Your task to perform on an android device: Go to CNN.com Image 0: 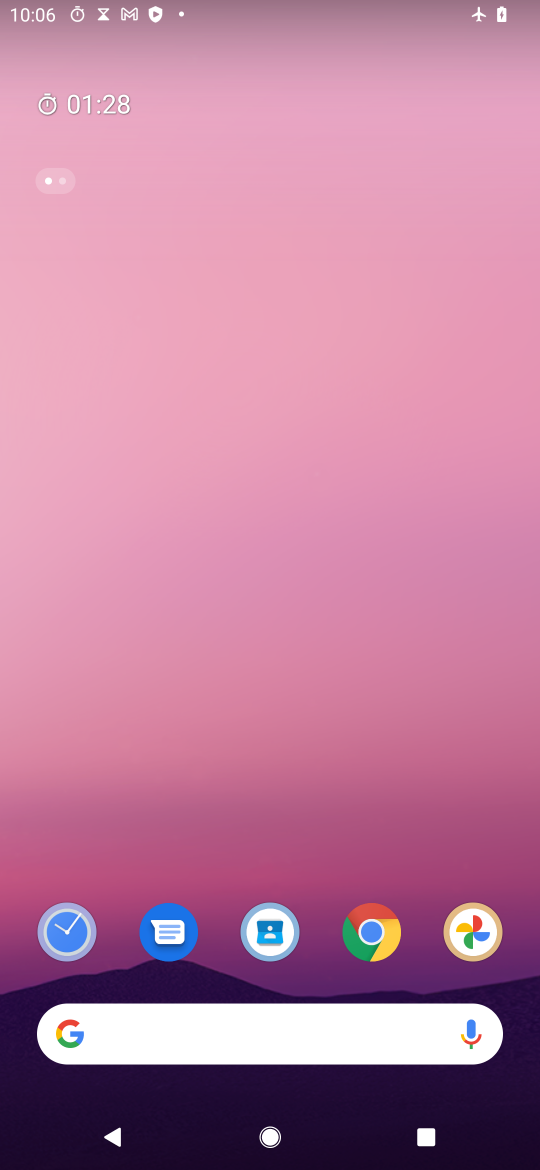
Step 0: drag from (329, 13) to (389, 512)
Your task to perform on an android device: Go to CNN.com Image 1: 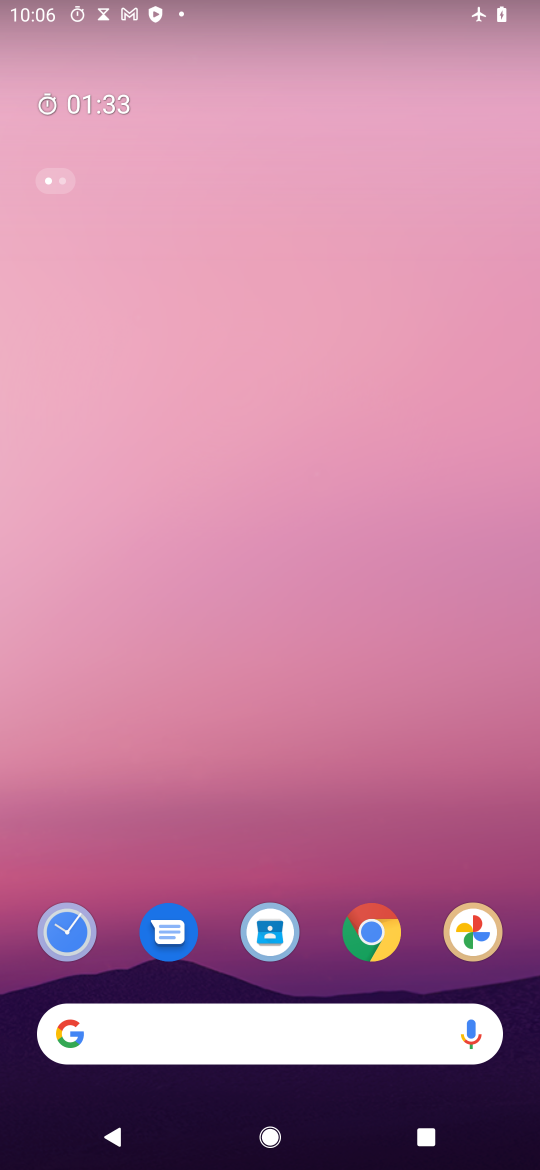
Step 1: drag from (344, 9) to (535, 1128)
Your task to perform on an android device: Go to CNN.com Image 2: 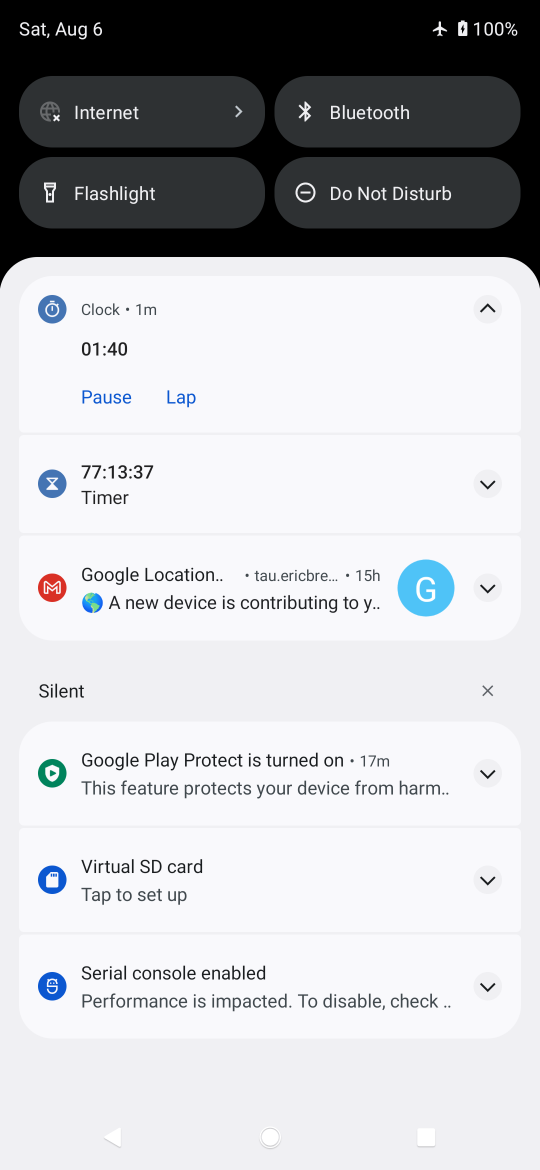
Step 2: drag from (279, 240) to (295, 622)
Your task to perform on an android device: Go to CNN.com Image 3: 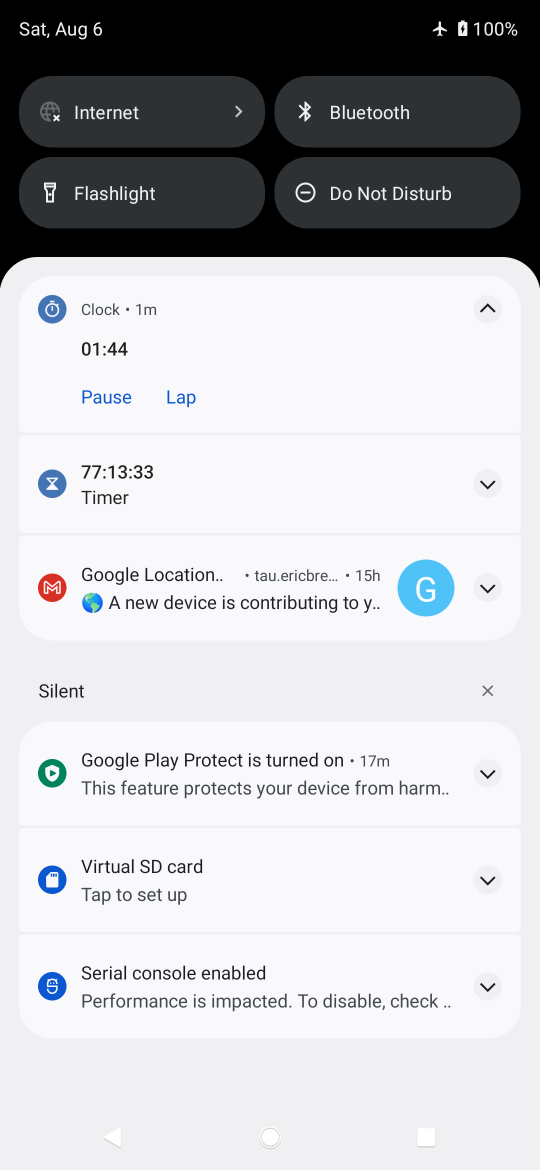
Step 3: drag from (275, 221) to (398, 1143)
Your task to perform on an android device: Go to CNN.com Image 4: 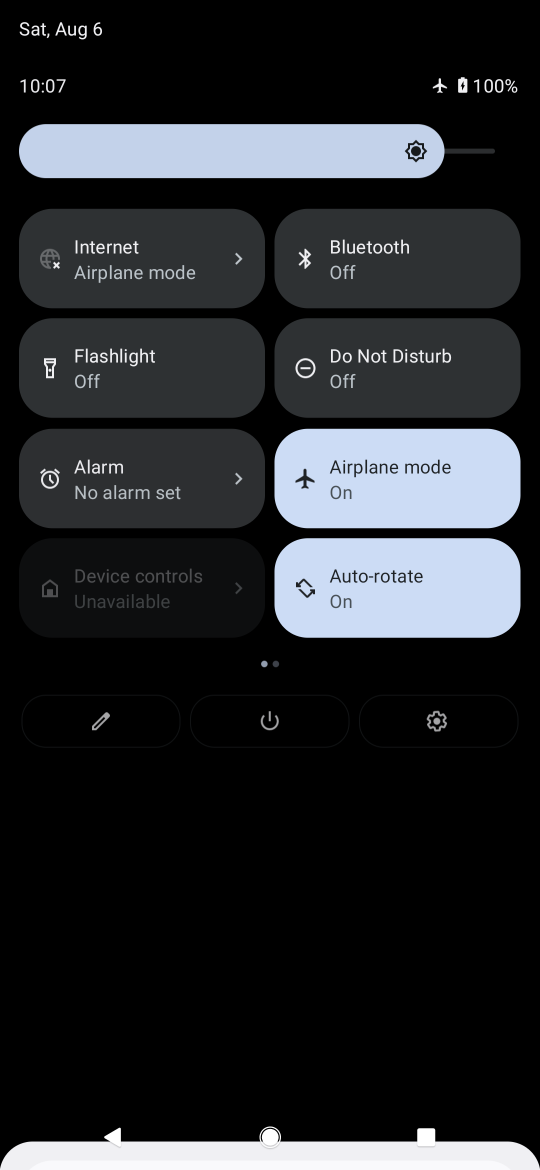
Step 4: click (371, 475)
Your task to perform on an android device: Go to CNN.com Image 5: 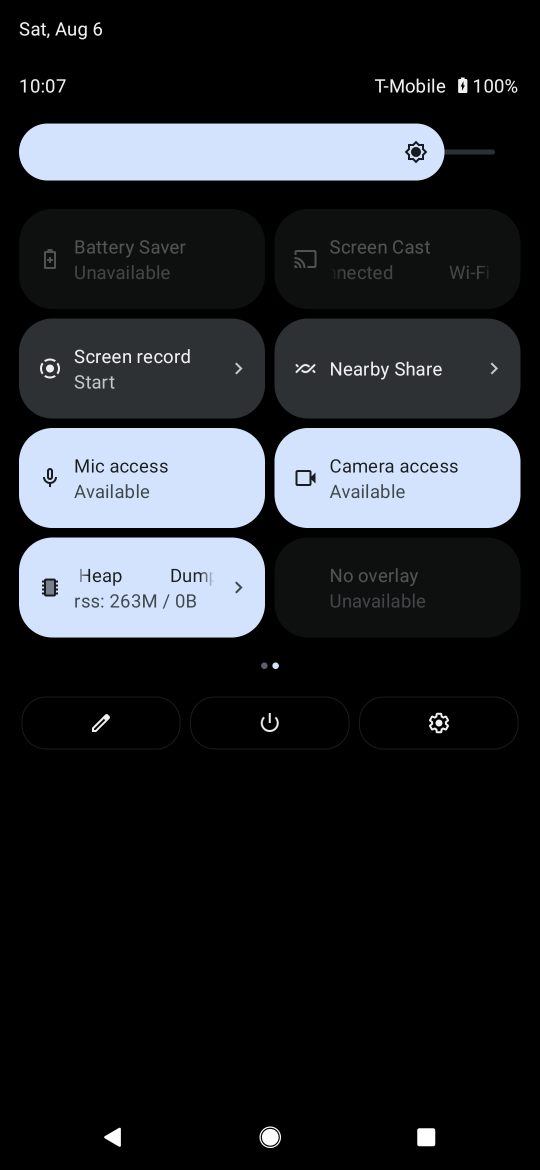
Step 5: drag from (211, 664) to (531, 659)
Your task to perform on an android device: Go to CNN.com Image 6: 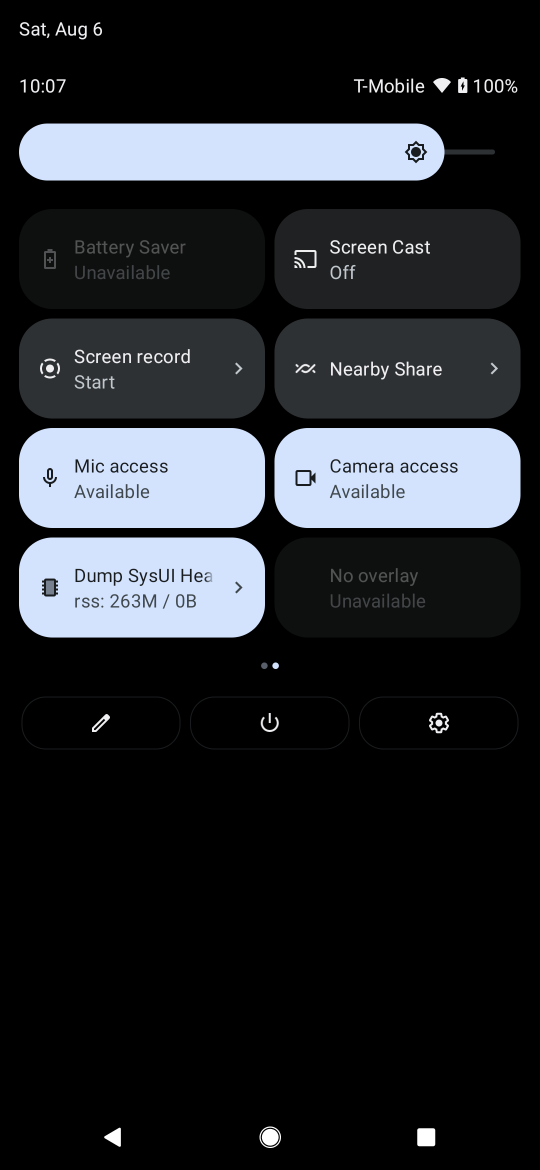
Step 6: press home button
Your task to perform on an android device: Go to CNN.com Image 7: 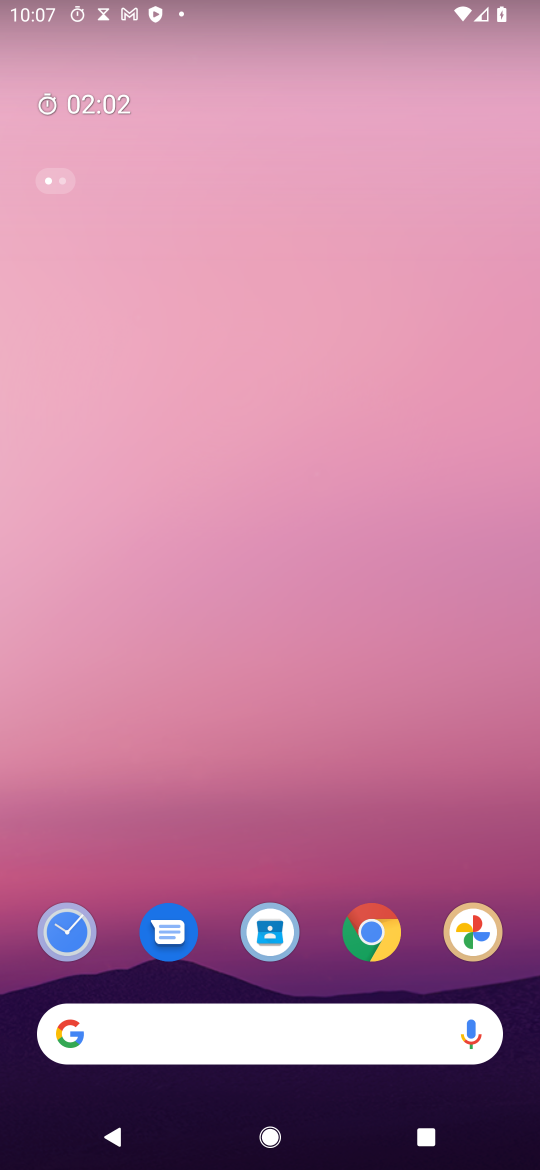
Step 7: drag from (332, 774) to (229, 84)
Your task to perform on an android device: Go to CNN.com Image 8: 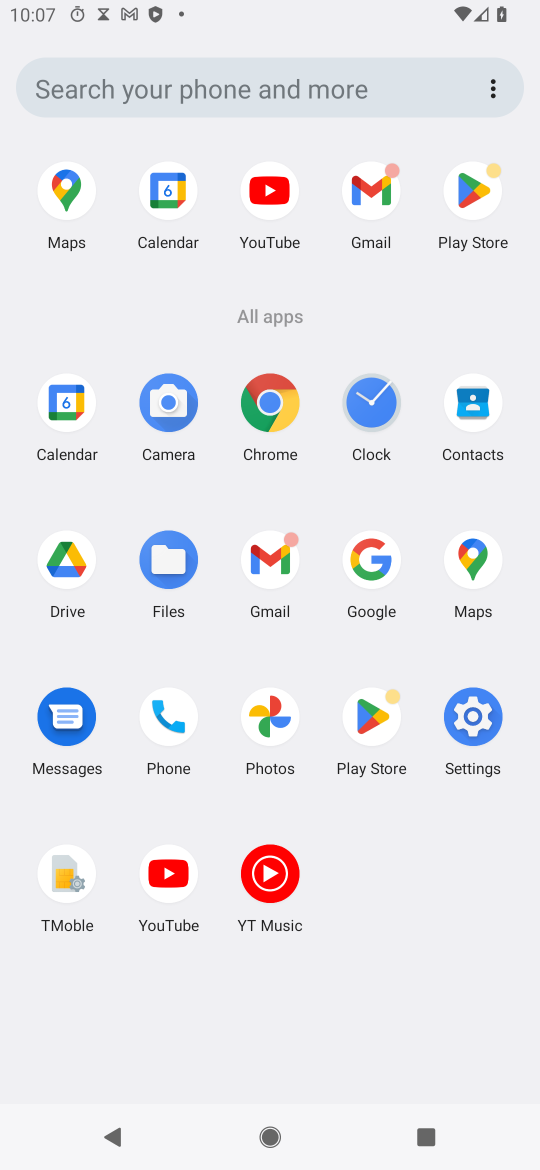
Step 8: click (267, 452)
Your task to perform on an android device: Go to CNN.com Image 9: 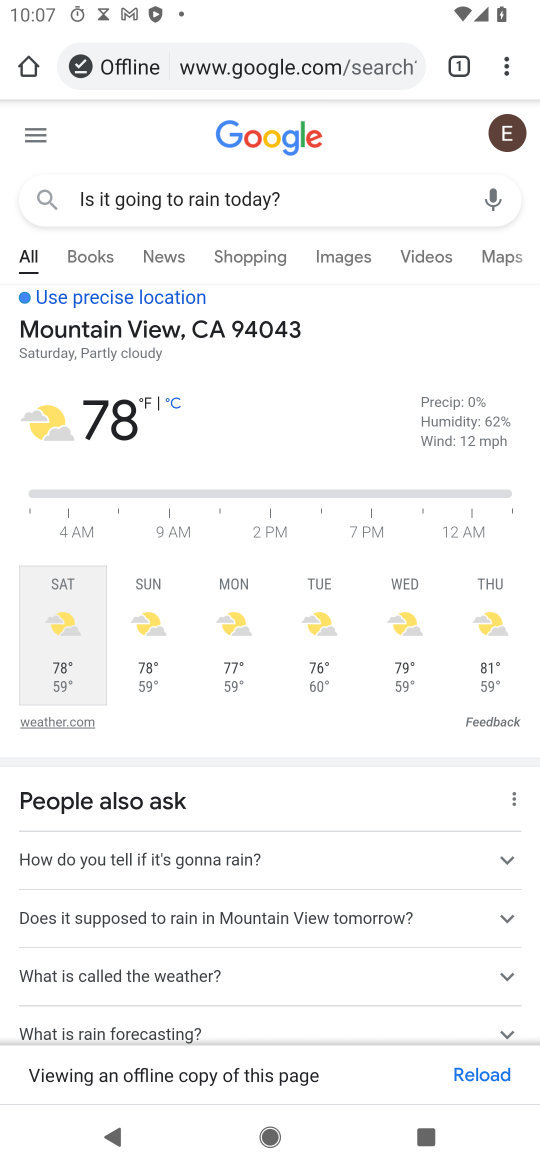
Step 9: click (311, 67)
Your task to perform on an android device: Go to CNN.com Image 10: 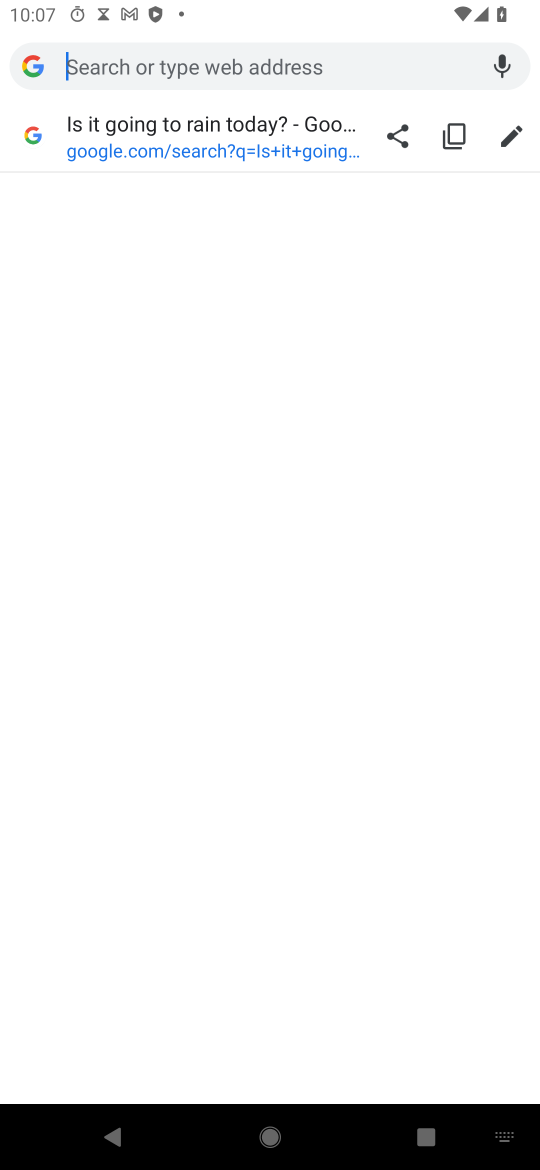
Step 10: type "cnn.com"
Your task to perform on an android device: Go to CNN.com Image 11: 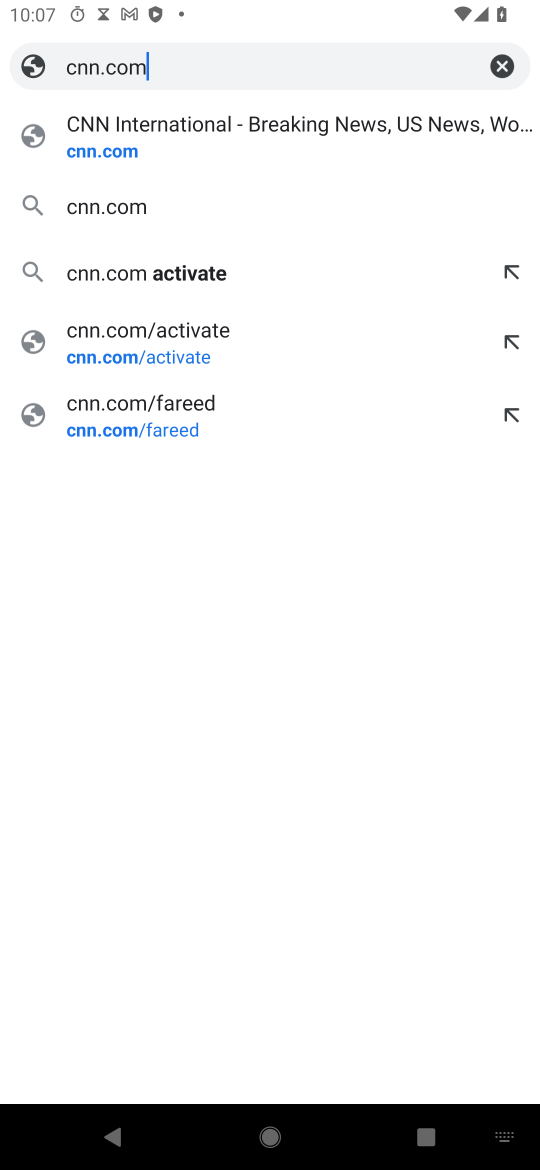
Step 11: click (362, 155)
Your task to perform on an android device: Go to CNN.com Image 12: 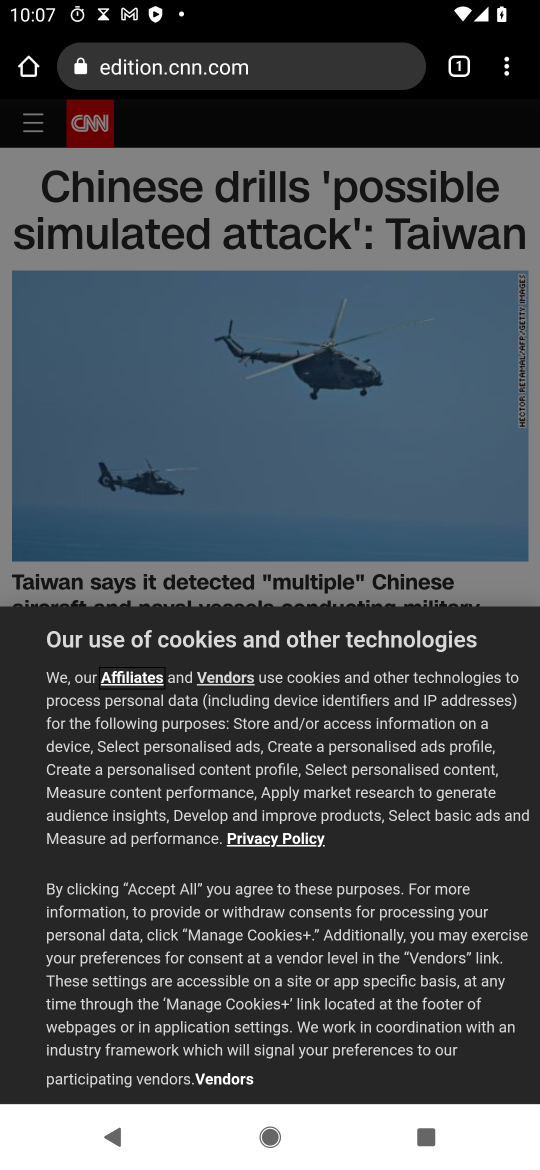
Step 12: task complete